Your task to perform on an android device: turn on wifi Image 0: 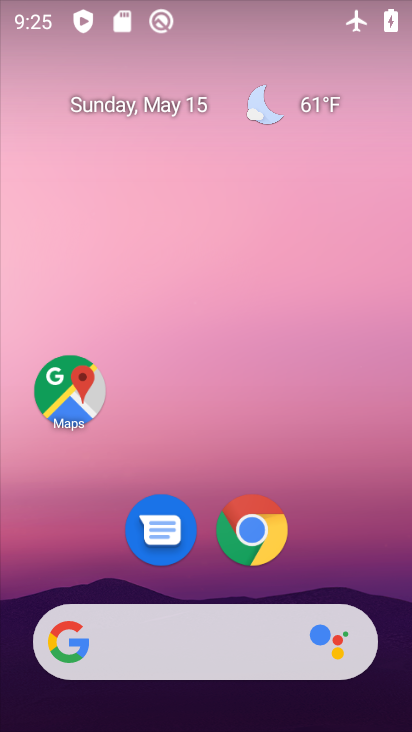
Step 0: drag from (218, 723) to (222, 50)
Your task to perform on an android device: turn on wifi Image 1: 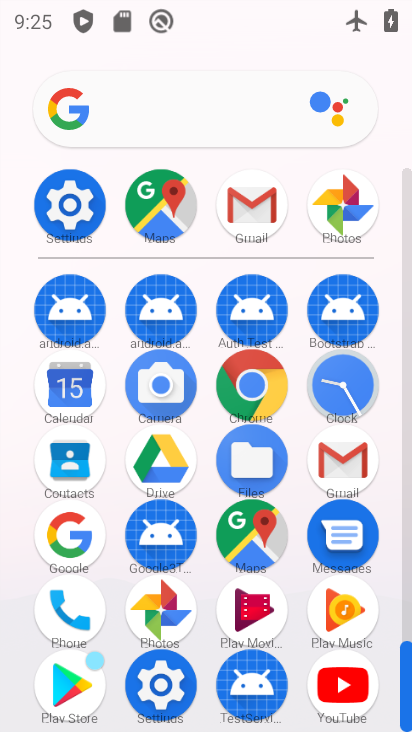
Step 1: click (60, 194)
Your task to perform on an android device: turn on wifi Image 2: 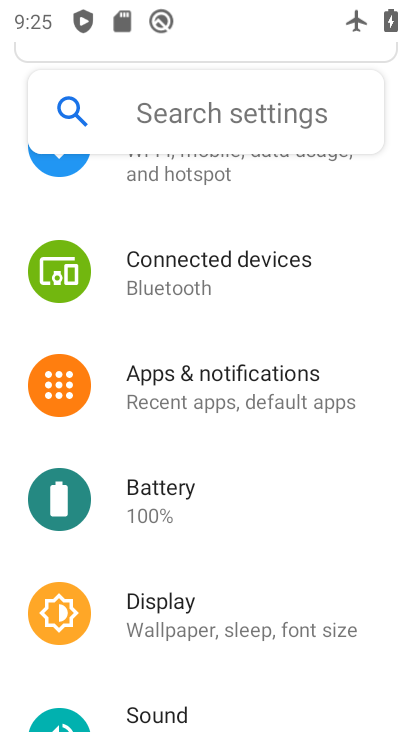
Step 2: drag from (311, 202) to (288, 567)
Your task to perform on an android device: turn on wifi Image 3: 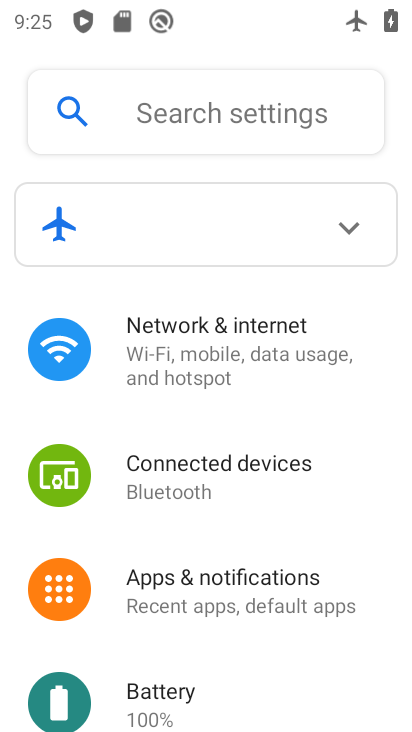
Step 3: click (192, 357)
Your task to perform on an android device: turn on wifi Image 4: 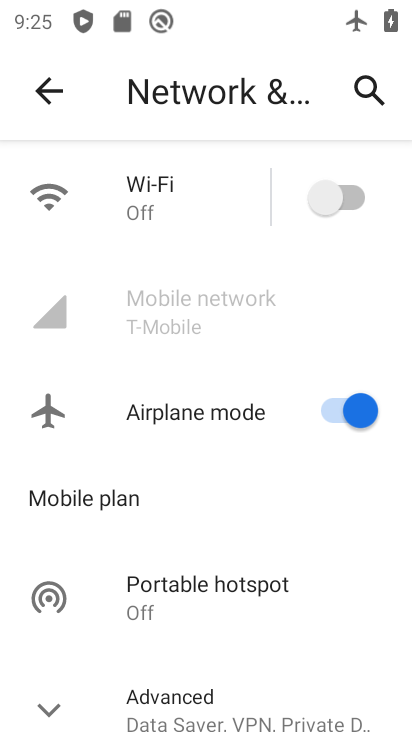
Step 4: click (349, 199)
Your task to perform on an android device: turn on wifi Image 5: 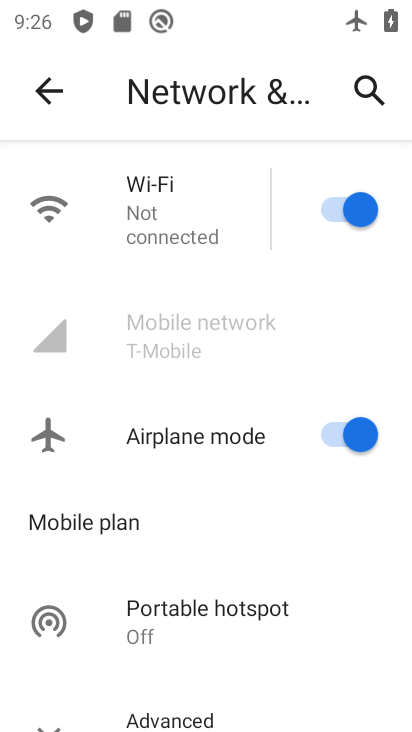
Step 5: task complete